Your task to perform on an android device: Go to eBay Image 0: 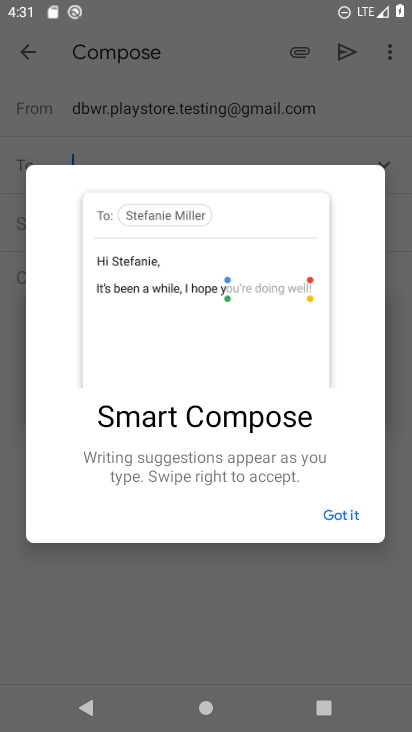
Step 0: press home button
Your task to perform on an android device: Go to eBay Image 1: 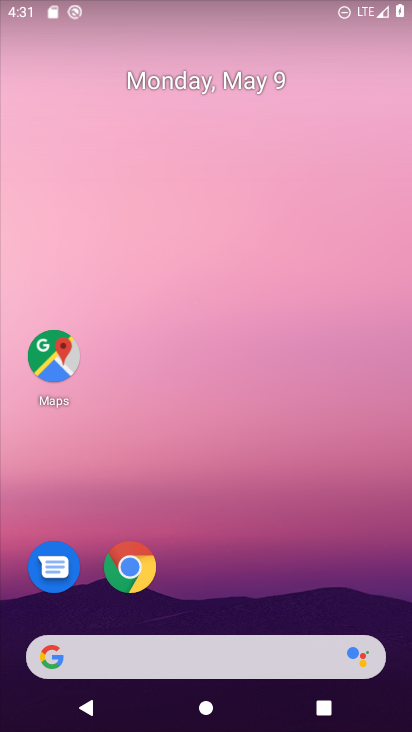
Step 1: click (137, 561)
Your task to perform on an android device: Go to eBay Image 2: 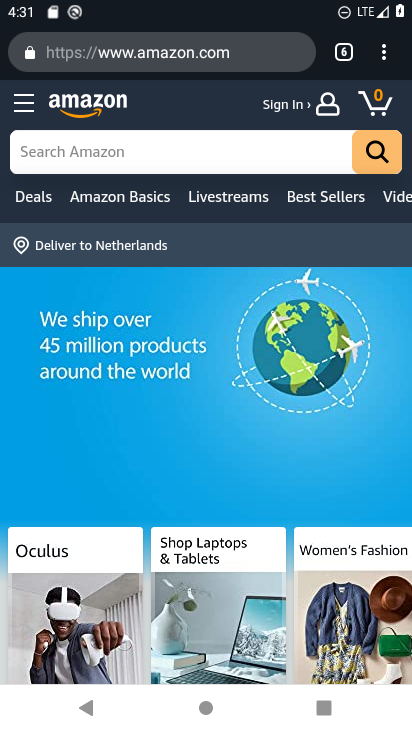
Step 2: click (340, 54)
Your task to perform on an android device: Go to eBay Image 3: 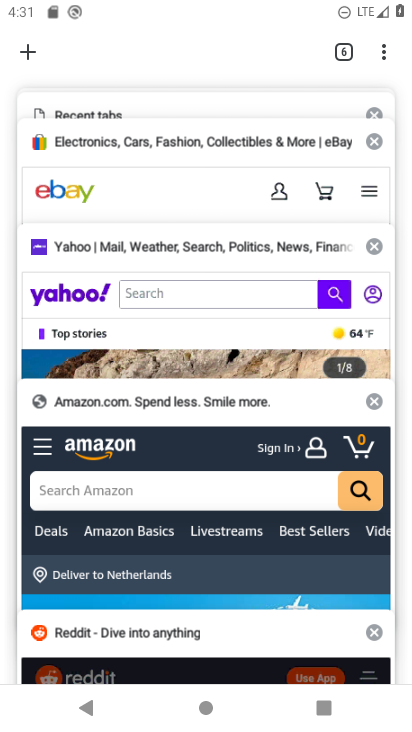
Step 3: click (147, 185)
Your task to perform on an android device: Go to eBay Image 4: 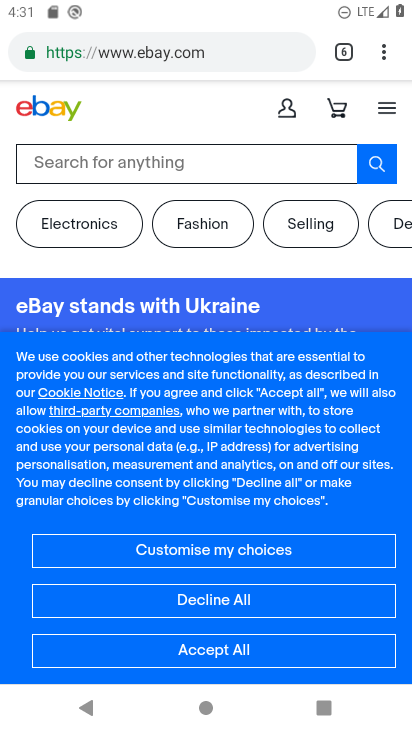
Step 4: task complete